Your task to perform on an android device: Go to privacy settings Image 0: 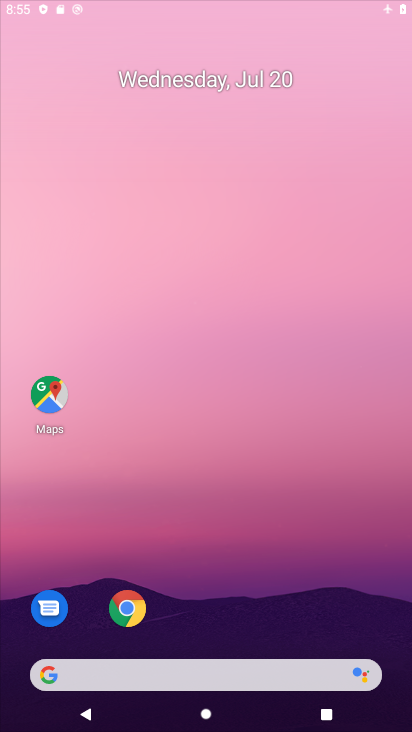
Step 0: click (220, 154)
Your task to perform on an android device: Go to privacy settings Image 1: 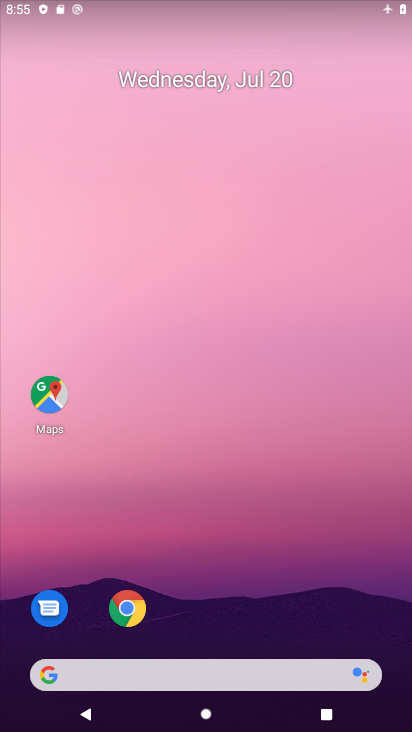
Step 1: drag from (297, 669) to (216, 63)
Your task to perform on an android device: Go to privacy settings Image 2: 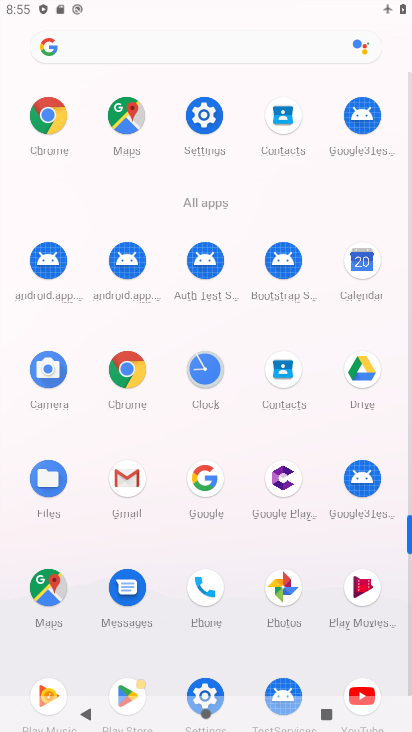
Step 2: click (206, 115)
Your task to perform on an android device: Go to privacy settings Image 3: 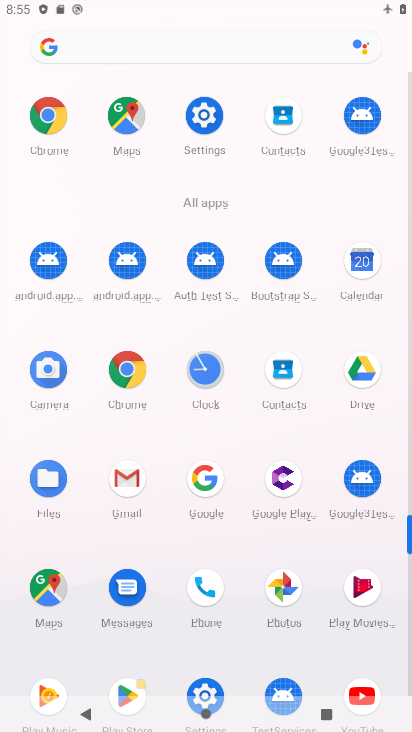
Step 3: click (206, 115)
Your task to perform on an android device: Go to privacy settings Image 4: 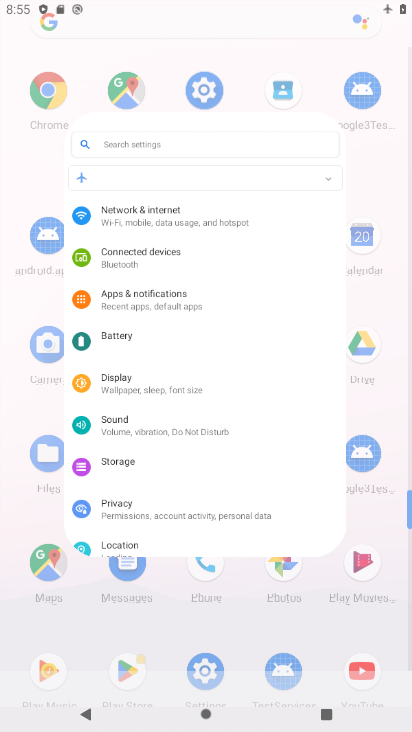
Step 4: click (206, 115)
Your task to perform on an android device: Go to privacy settings Image 5: 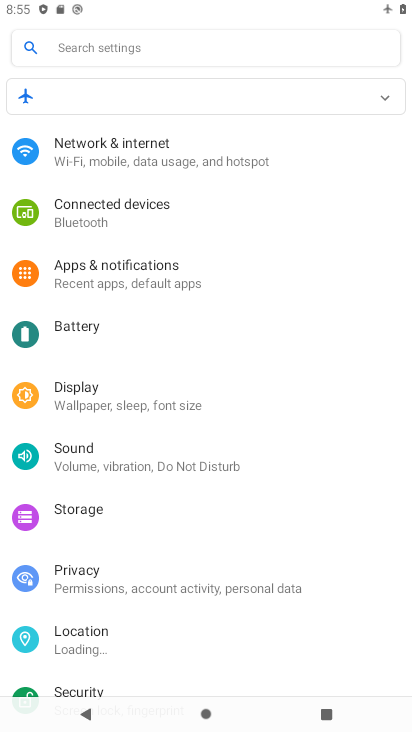
Step 5: click (207, 115)
Your task to perform on an android device: Go to privacy settings Image 6: 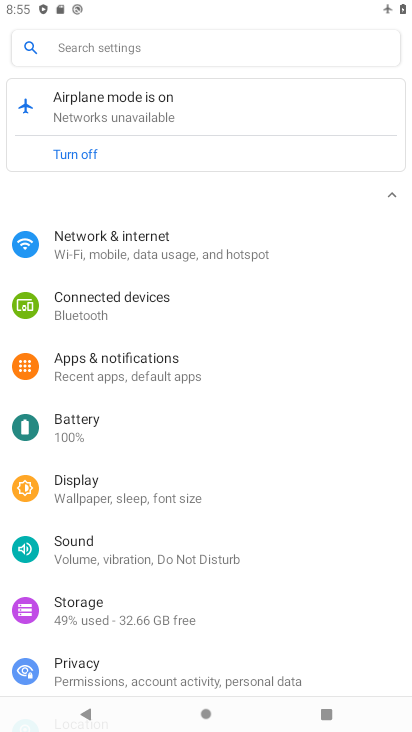
Step 6: drag from (122, 658) to (160, 304)
Your task to perform on an android device: Go to privacy settings Image 7: 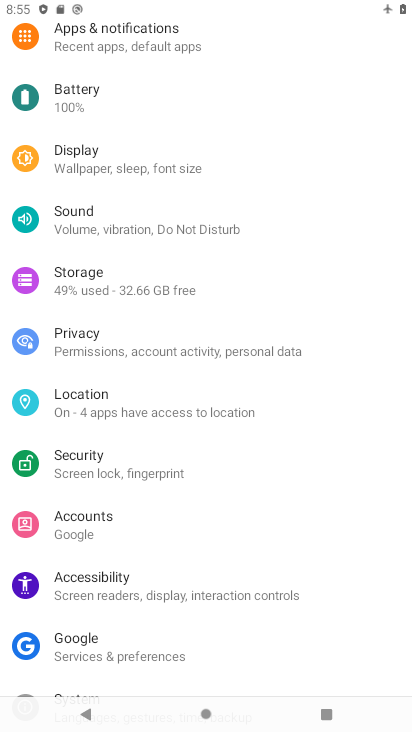
Step 7: click (65, 339)
Your task to perform on an android device: Go to privacy settings Image 8: 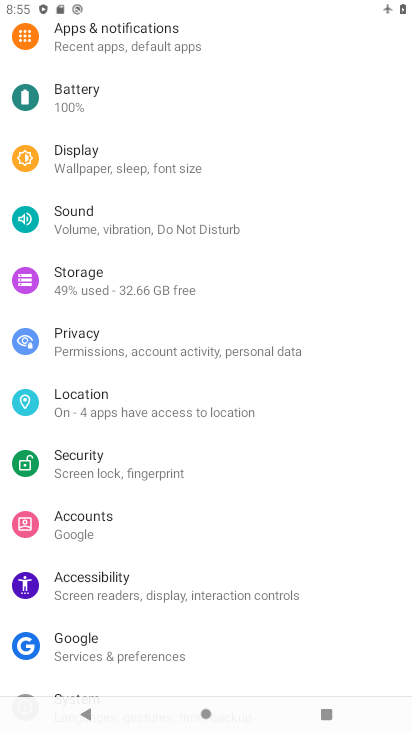
Step 8: click (67, 339)
Your task to perform on an android device: Go to privacy settings Image 9: 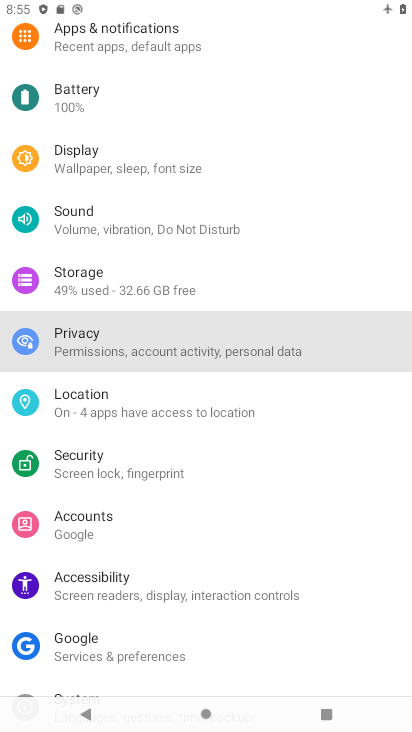
Step 9: click (72, 342)
Your task to perform on an android device: Go to privacy settings Image 10: 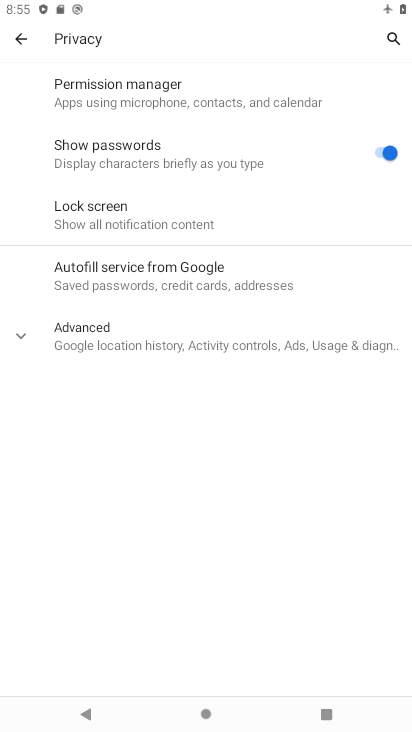
Step 10: task complete